Your task to perform on an android device: Add "amazon basics triple a" to the cart on bestbuy.com Image 0: 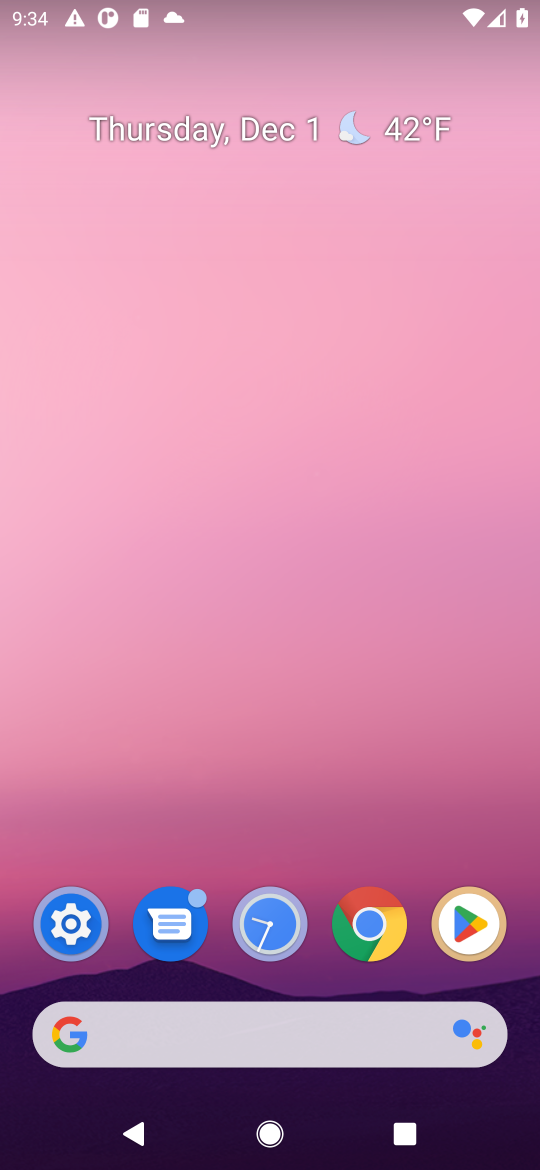
Step 0: click (262, 1024)
Your task to perform on an android device: Add "amazon basics triple a" to the cart on bestbuy.com Image 1: 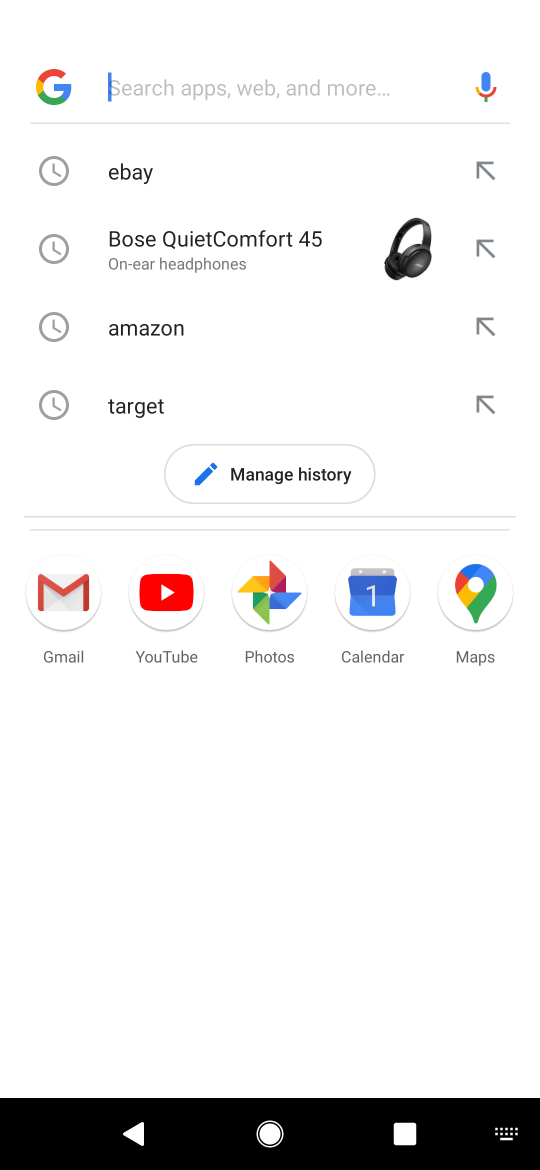
Step 1: task complete